Your task to perform on an android device: visit the assistant section in the google photos Image 0: 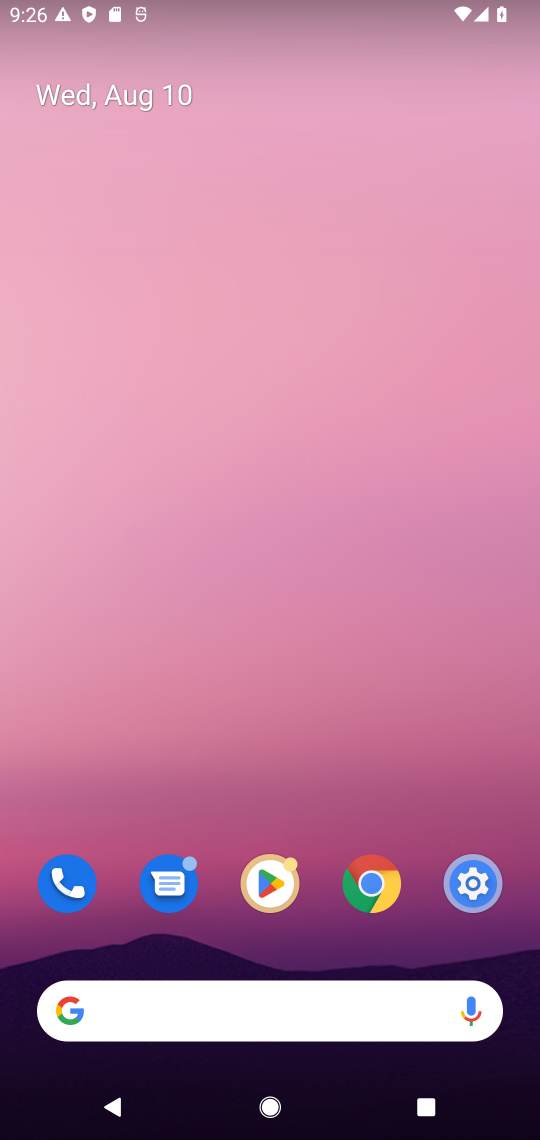
Step 0: drag from (206, 951) to (173, 240)
Your task to perform on an android device: visit the assistant section in the google photos Image 1: 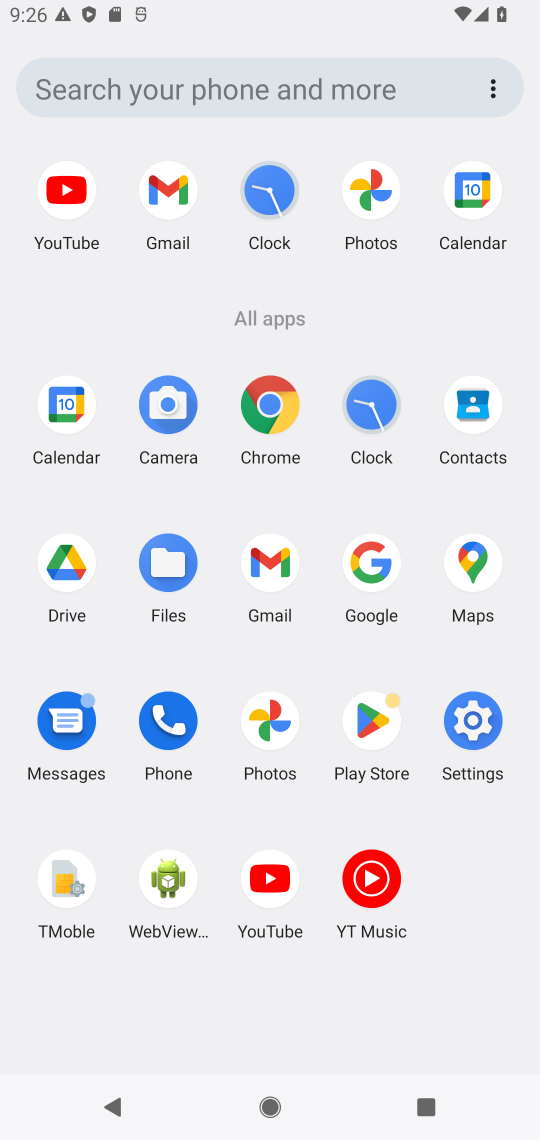
Step 1: click (267, 720)
Your task to perform on an android device: visit the assistant section in the google photos Image 2: 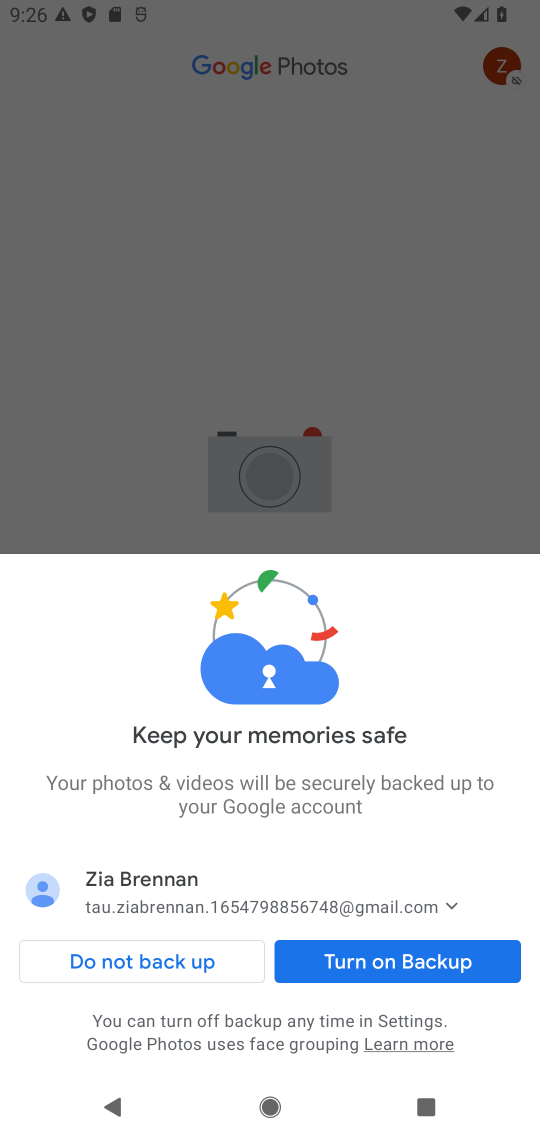
Step 2: click (466, 960)
Your task to perform on an android device: visit the assistant section in the google photos Image 3: 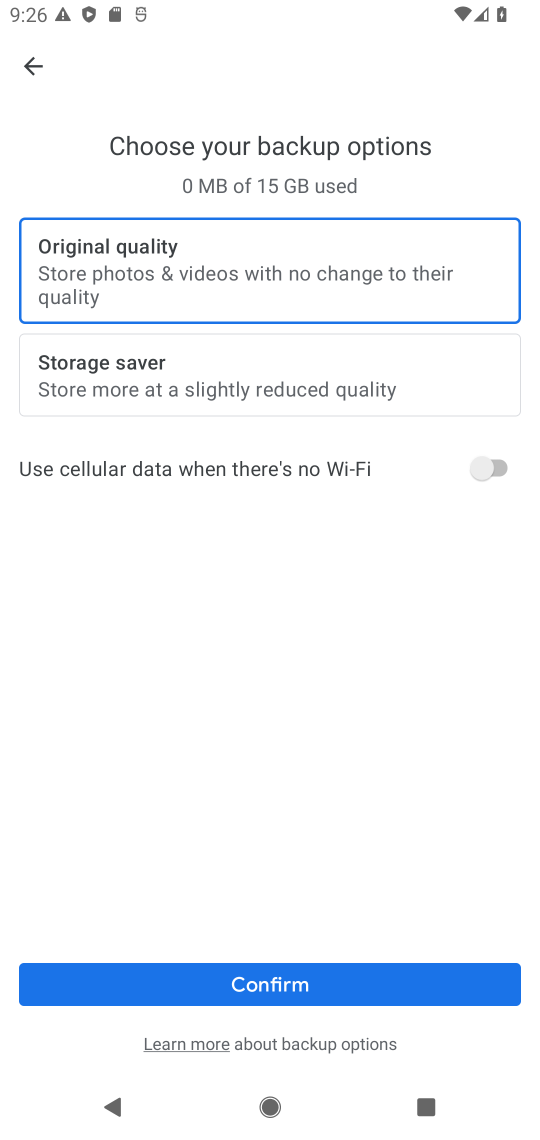
Step 3: click (297, 986)
Your task to perform on an android device: visit the assistant section in the google photos Image 4: 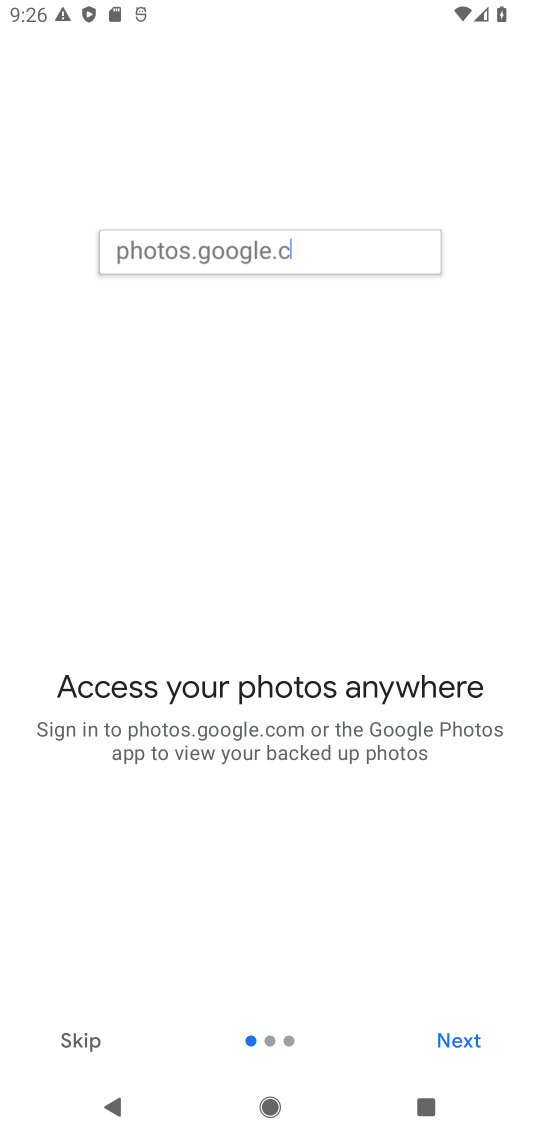
Step 4: click (490, 1048)
Your task to perform on an android device: visit the assistant section in the google photos Image 5: 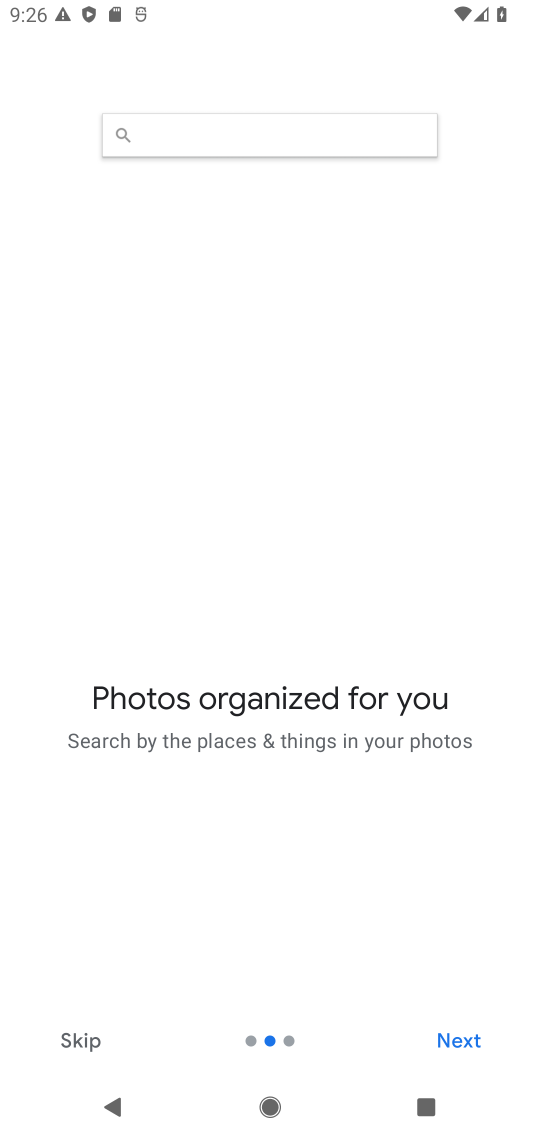
Step 5: click (490, 1048)
Your task to perform on an android device: visit the assistant section in the google photos Image 6: 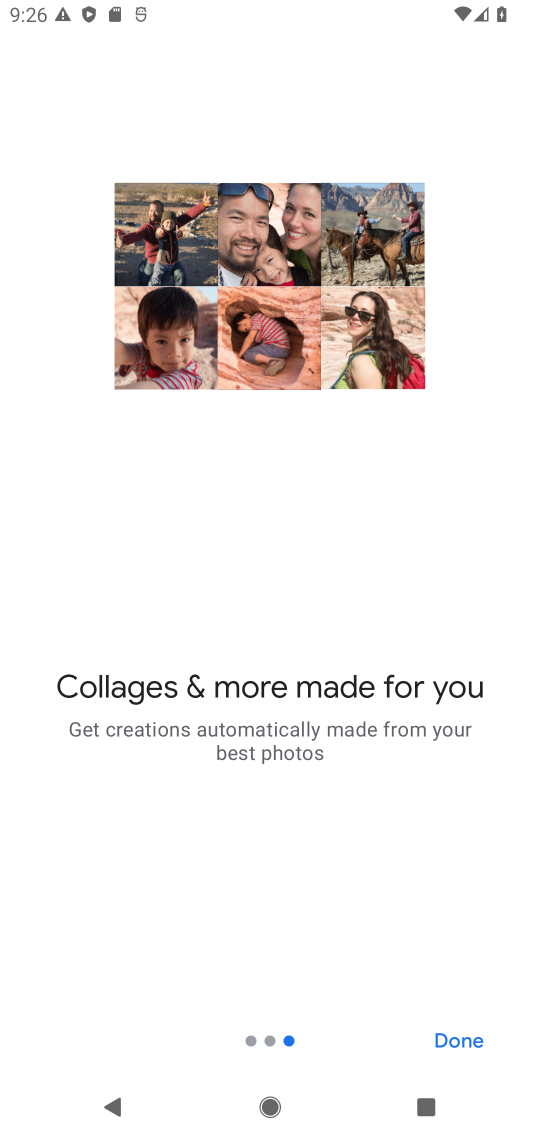
Step 6: click (490, 1048)
Your task to perform on an android device: visit the assistant section in the google photos Image 7: 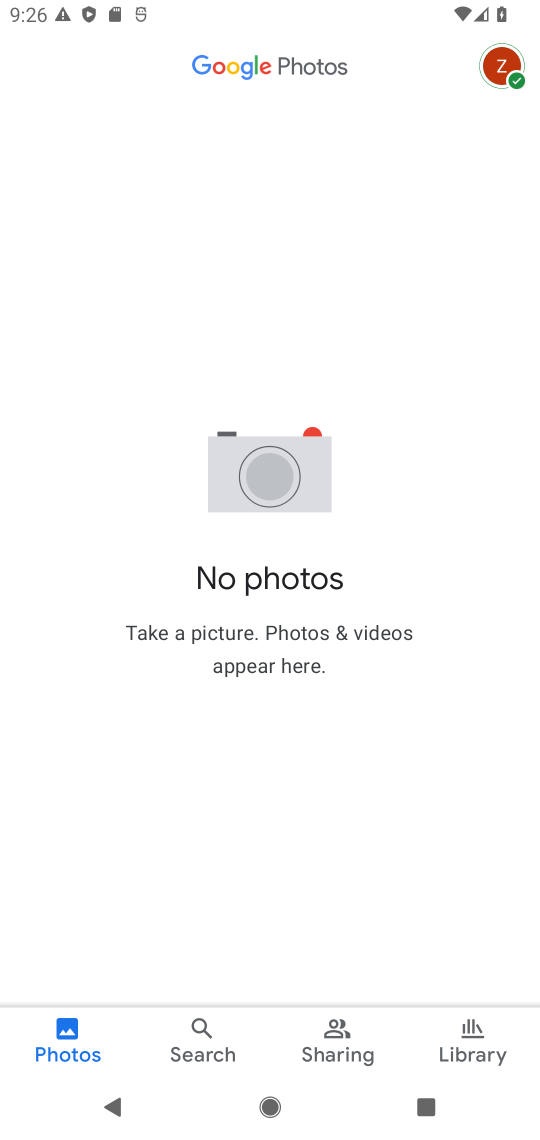
Step 7: task complete